Your task to perform on an android device: check storage Image 0: 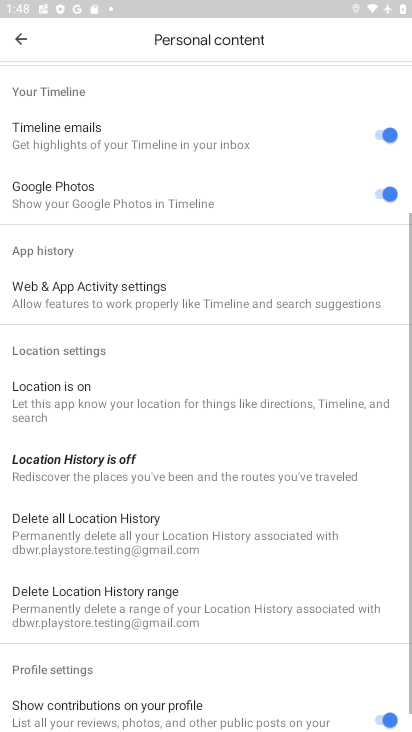
Step 0: press home button
Your task to perform on an android device: check storage Image 1: 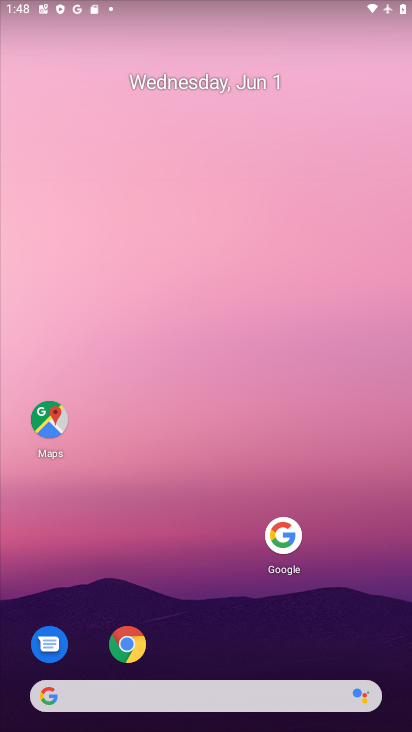
Step 1: drag from (166, 584) to (224, 79)
Your task to perform on an android device: check storage Image 2: 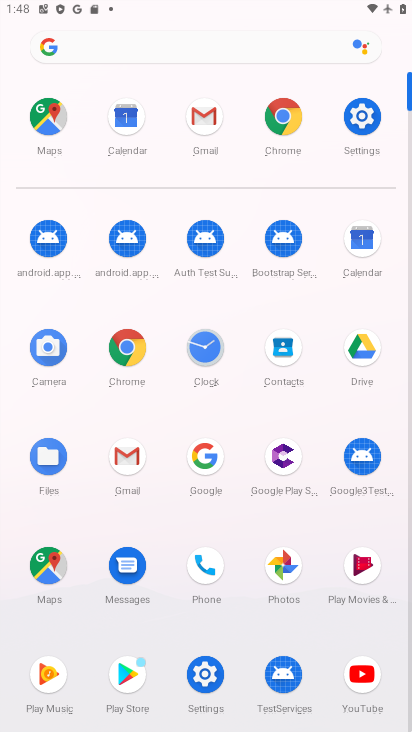
Step 2: click (365, 119)
Your task to perform on an android device: check storage Image 3: 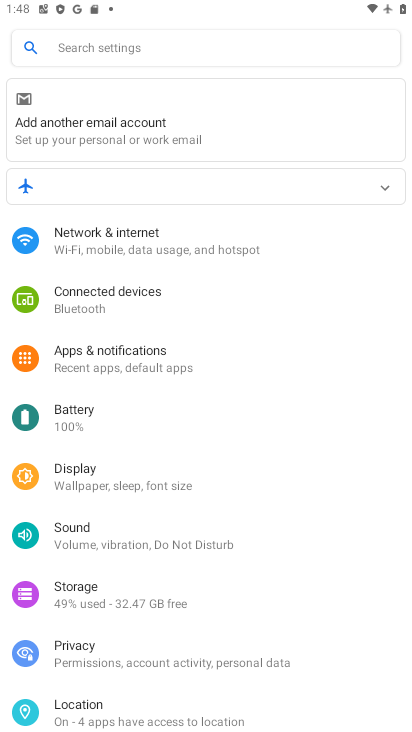
Step 3: click (97, 596)
Your task to perform on an android device: check storage Image 4: 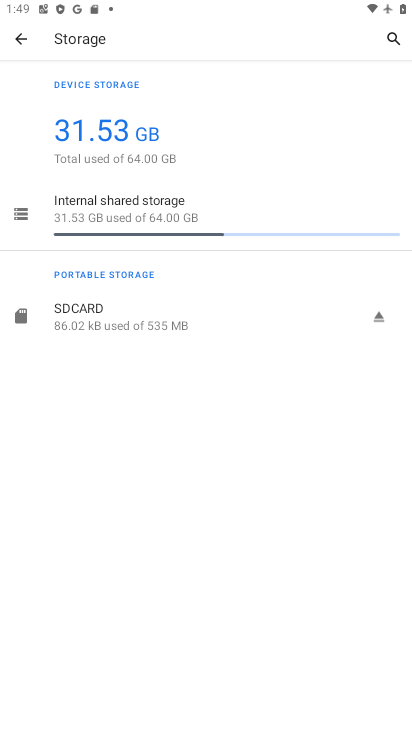
Step 4: task complete